Your task to perform on an android device: turn smart compose on in the gmail app Image 0: 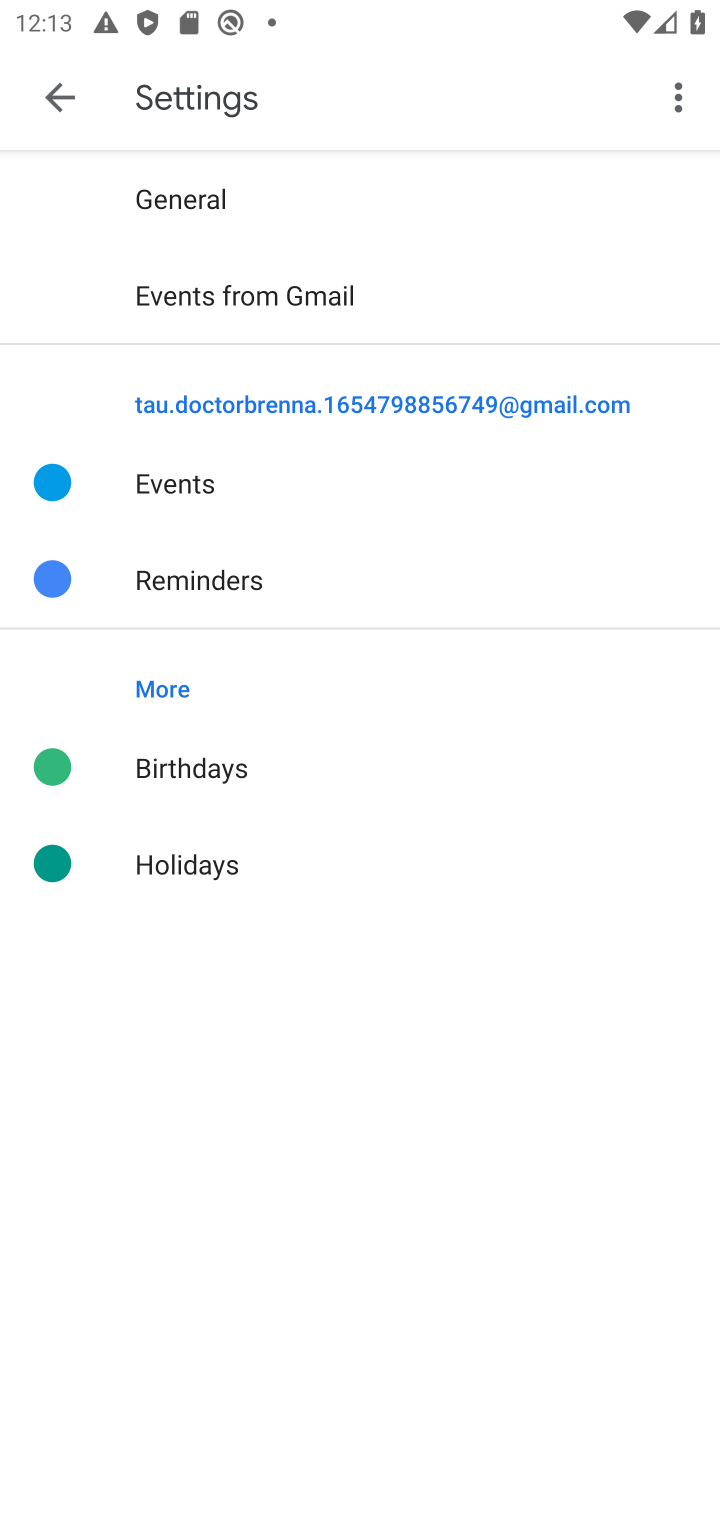
Step 0: press home button
Your task to perform on an android device: turn smart compose on in the gmail app Image 1: 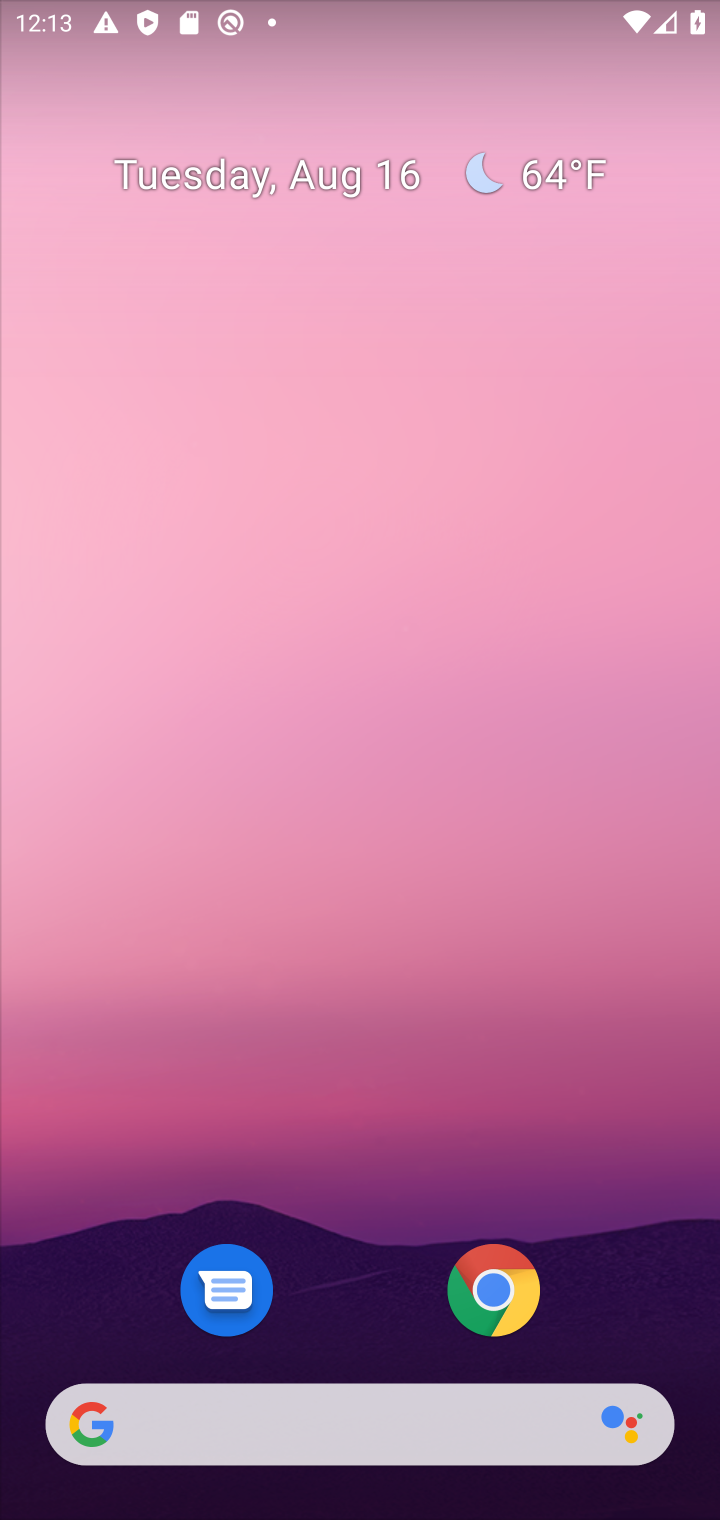
Step 1: drag from (254, 428) to (379, 150)
Your task to perform on an android device: turn smart compose on in the gmail app Image 2: 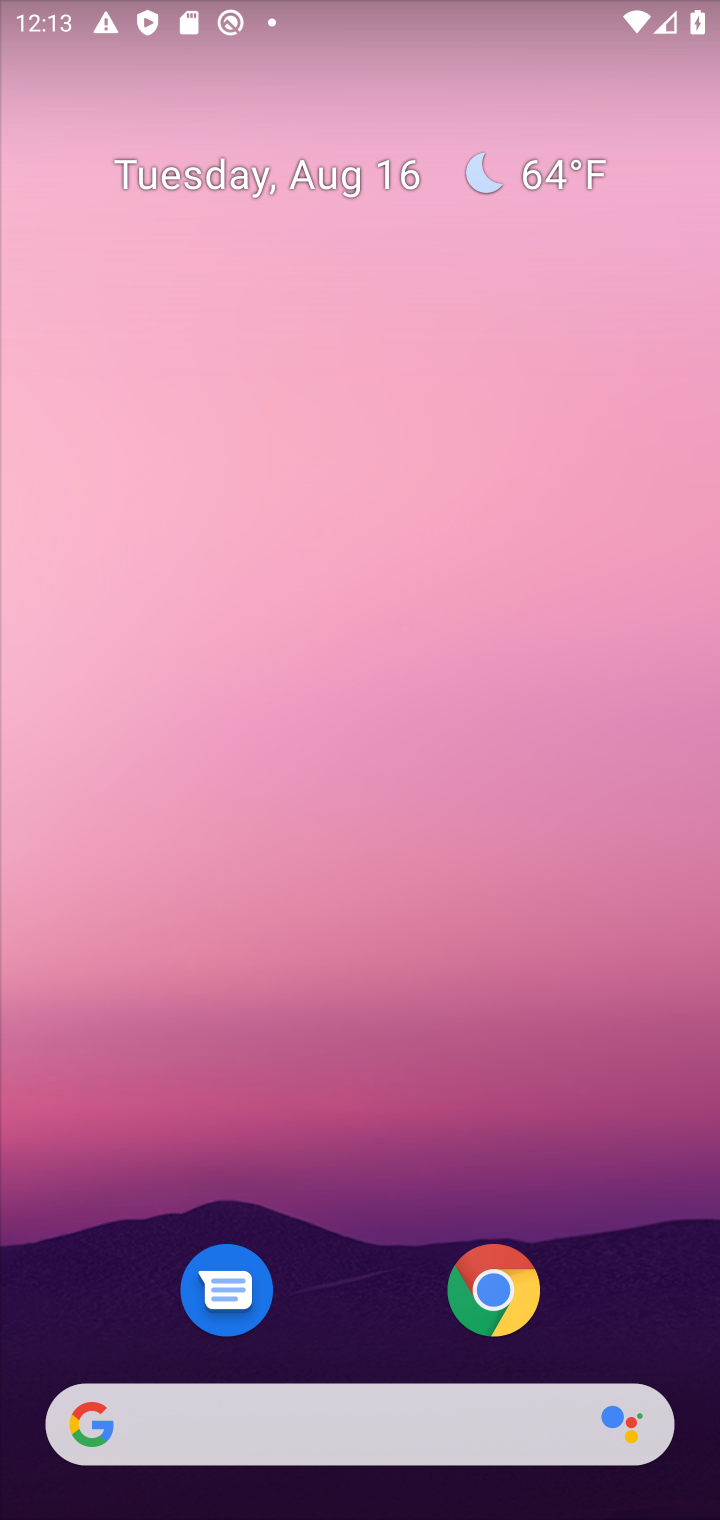
Step 2: drag from (88, 1093) to (245, 186)
Your task to perform on an android device: turn smart compose on in the gmail app Image 3: 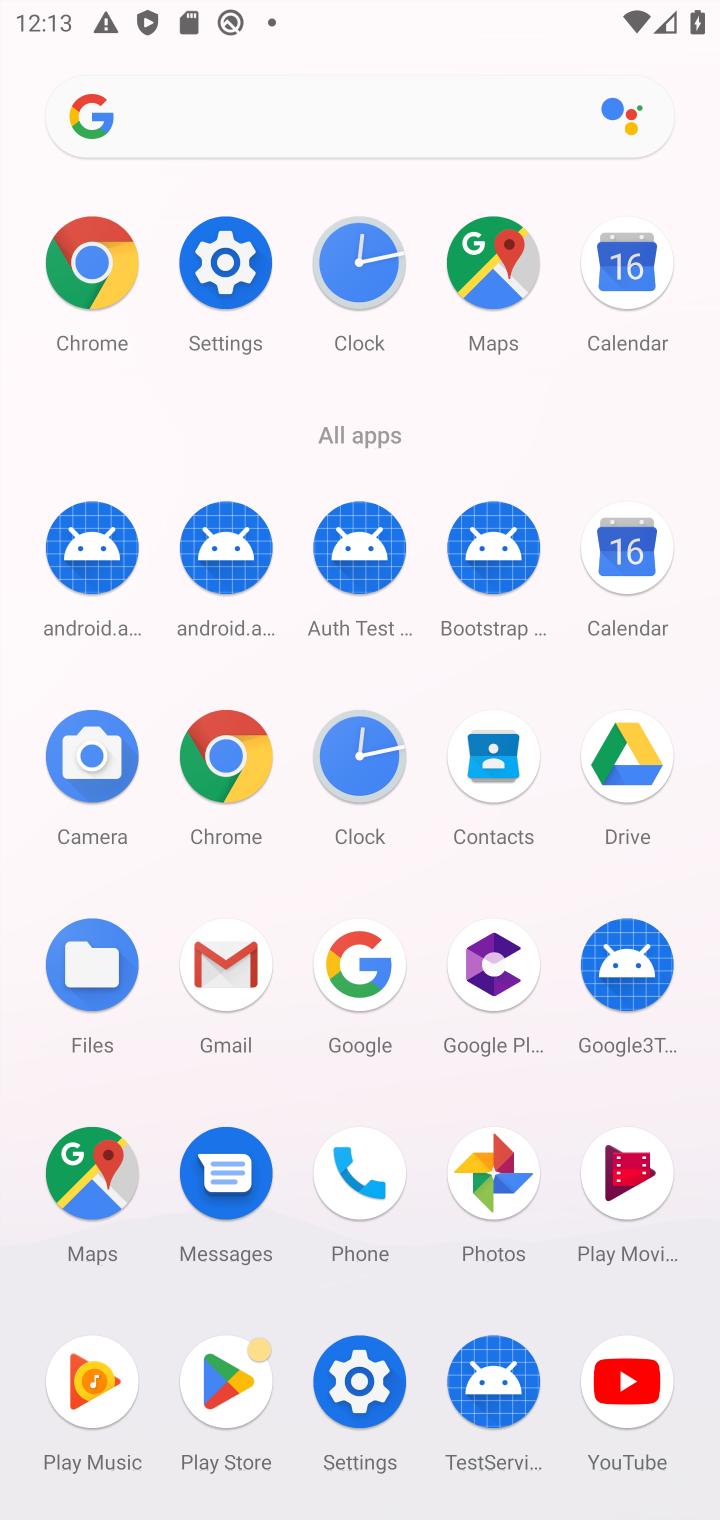
Step 3: click (216, 1008)
Your task to perform on an android device: turn smart compose on in the gmail app Image 4: 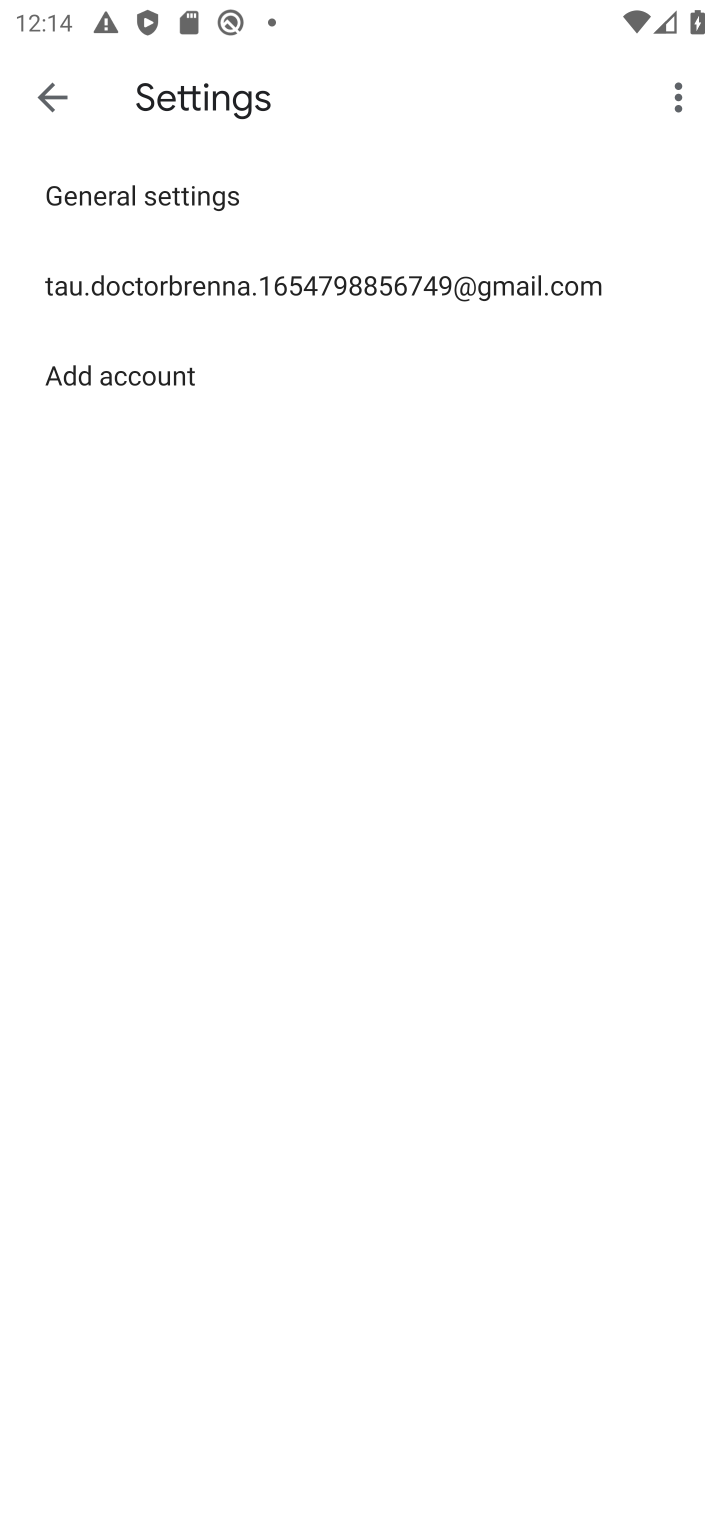
Step 4: click (184, 292)
Your task to perform on an android device: turn smart compose on in the gmail app Image 5: 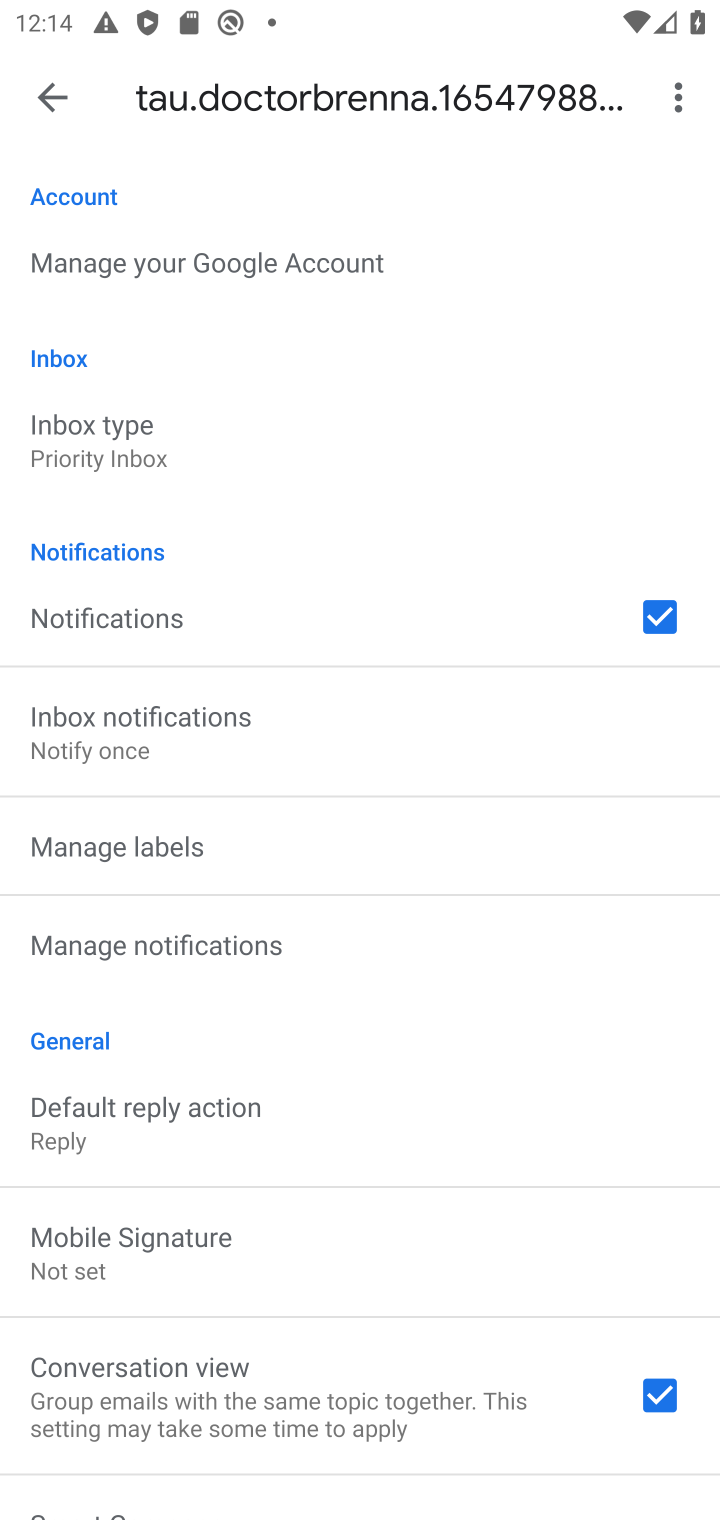
Step 5: task complete